Your task to perform on an android device: check android version Image 0: 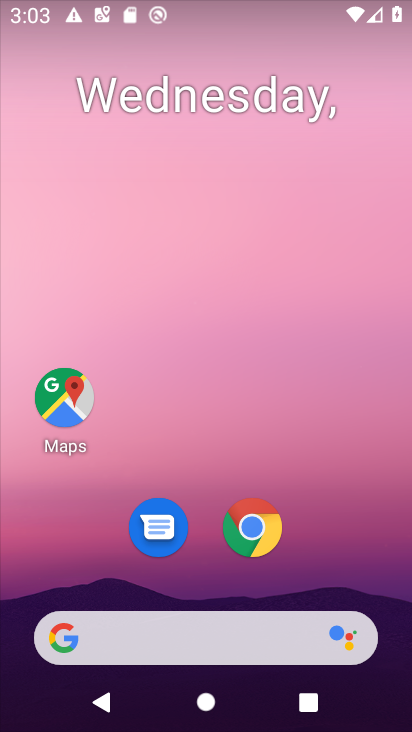
Step 0: drag from (342, 539) to (135, 21)
Your task to perform on an android device: check android version Image 1: 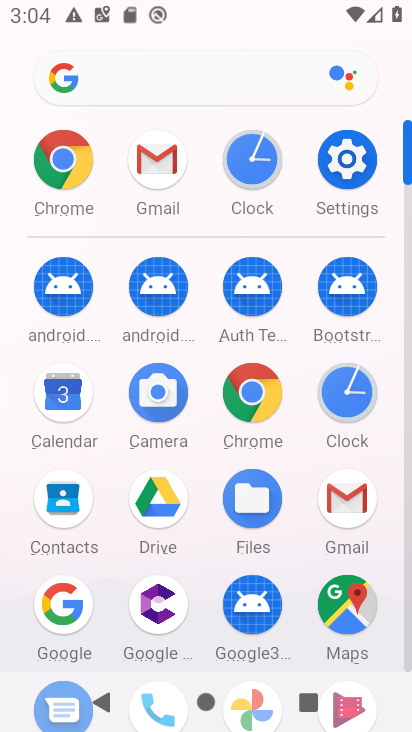
Step 1: click (358, 150)
Your task to perform on an android device: check android version Image 2: 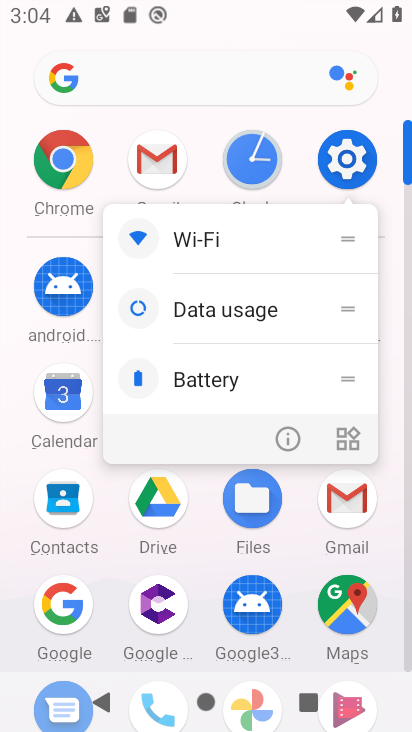
Step 2: click (358, 150)
Your task to perform on an android device: check android version Image 3: 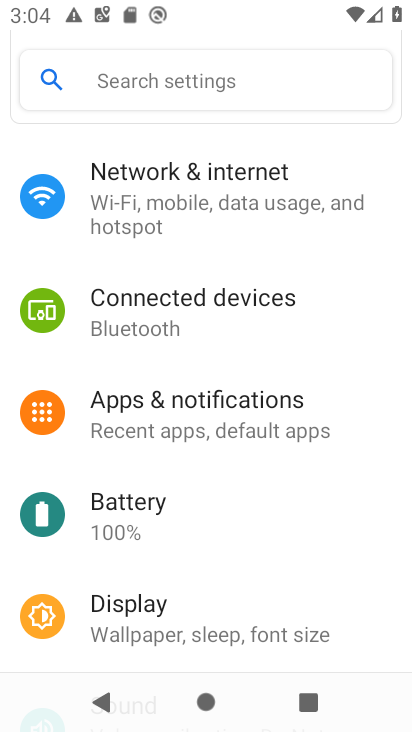
Step 3: drag from (273, 595) to (281, 77)
Your task to perform on an android device: check android version Image 4: 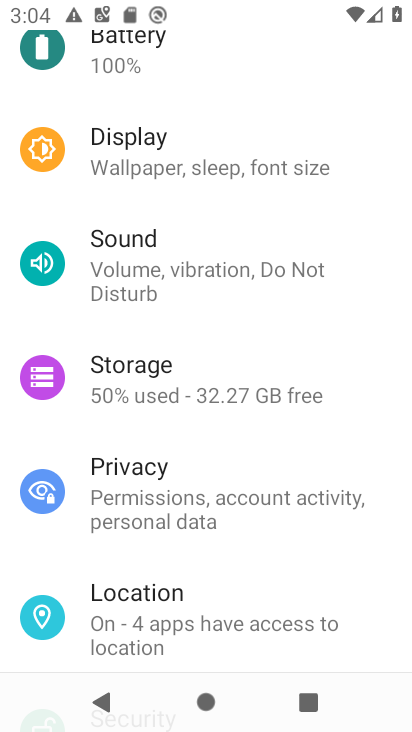
Step 4: drag from (241, 588) to (298, 150)
Your task to perform on an android device: check android version Image 5: 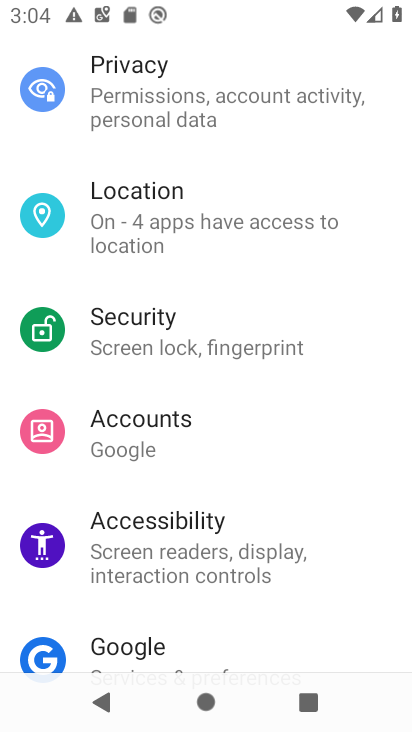
Step 5: drag from (250, 511) to (264, 208)
Your task to perform on an android device: check android version Image 6: 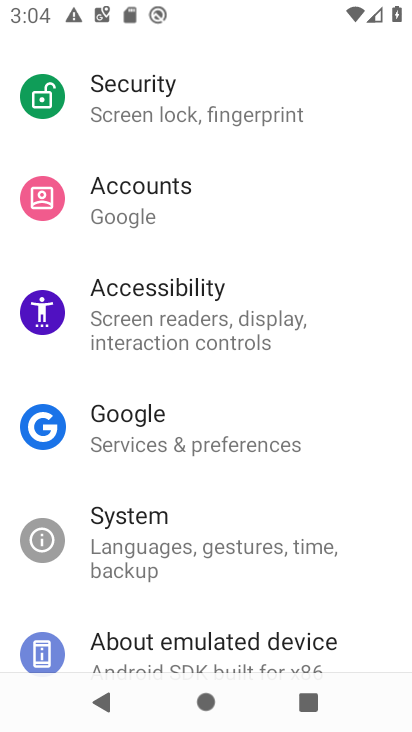
Step 6: drag from (282, 590) to (309, 233)
Your task to perform on an android device: check android version Image 7: 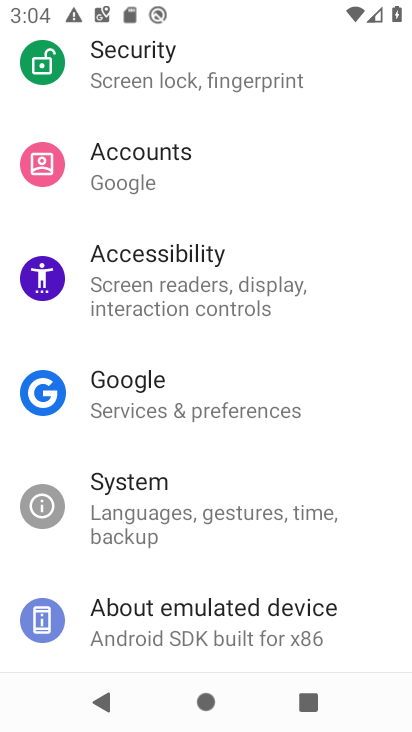
Step 7: click (197, 607)
Your task to perform on an android device: check android version Image 8: 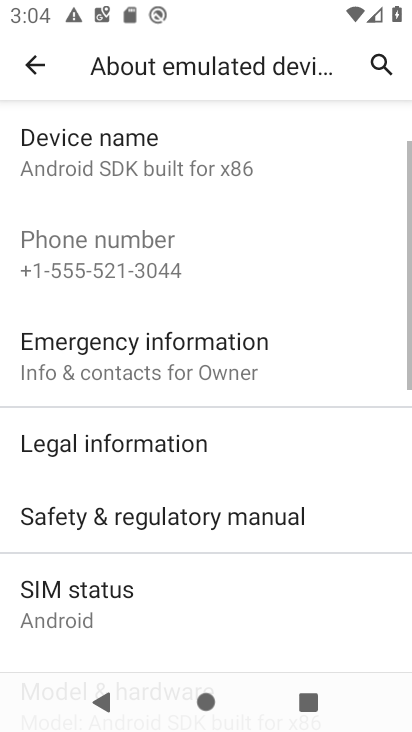
Step 8: drag from (280, 597) to (230, 115)
Your task to perform on an android device: check android version Image 9: 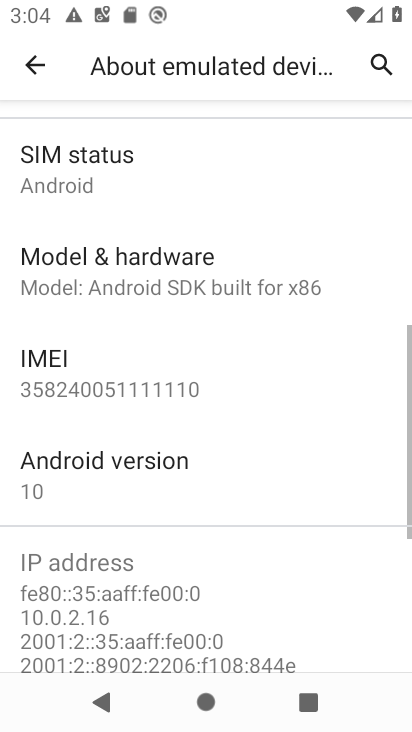
Step 9: click (102, 475)
Your task to perform on an android device: check android version Image 10: 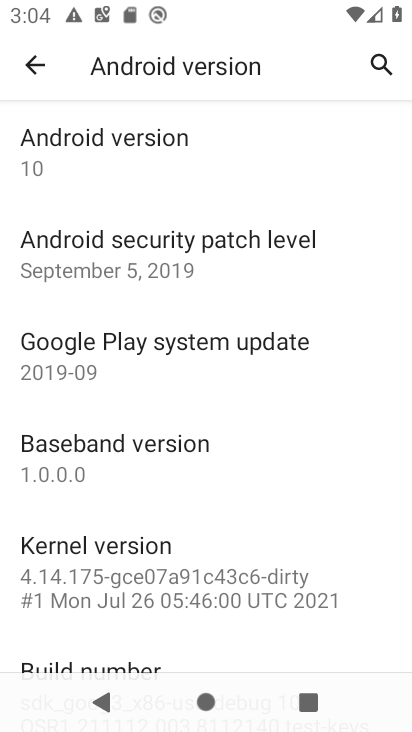
Step 10: task complete